Your task to perform on an android device: snooze an email in the gmail app Image 0: 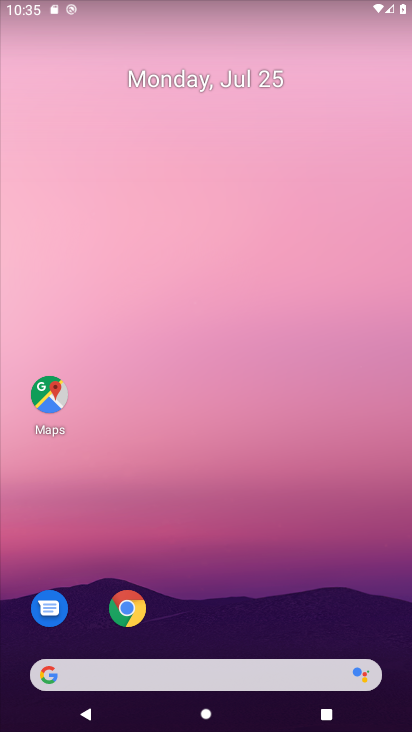
Step 0: drag from (200, 656) to (198, 272)
Your task to perform on an android device: snooze an email in the gmail app Image 1: 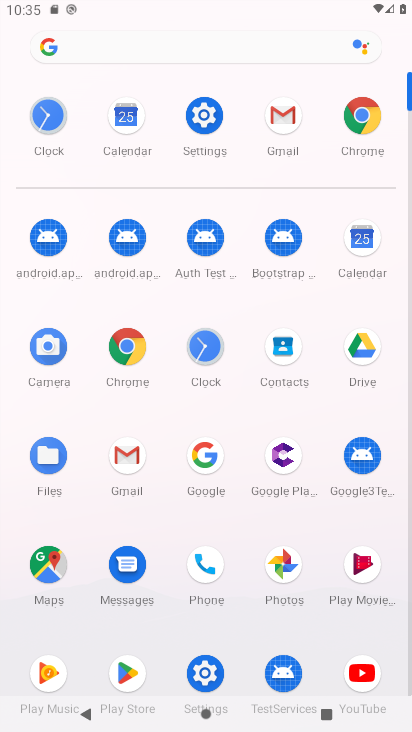
Step 1: click (133, 460)
Your task to perform on an android device: snooze an email in the gmail app Image 2: 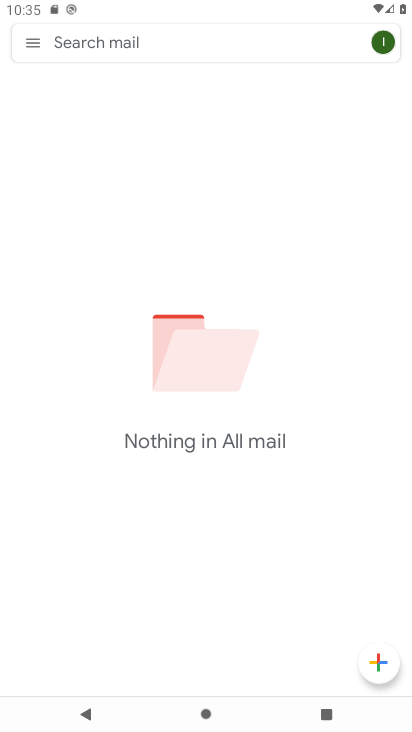
Step 2: click (27, 35)
Your task to perform on an android device: snooze an email in the gmail app Image 3: 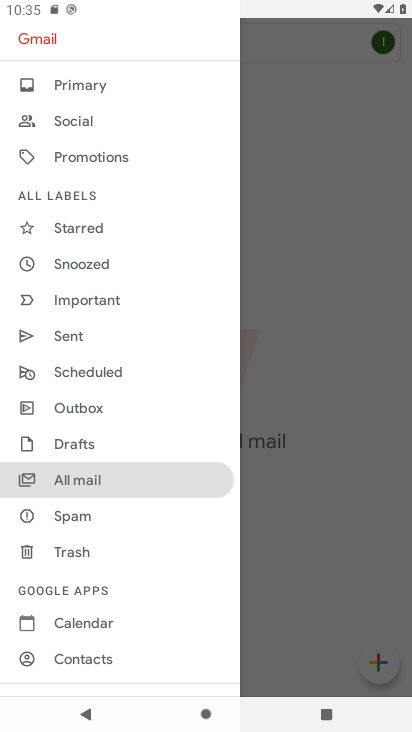
Step 3: click (100, 257)
Your task to perform on an android device: snooze an email in the gmail app Image 4: 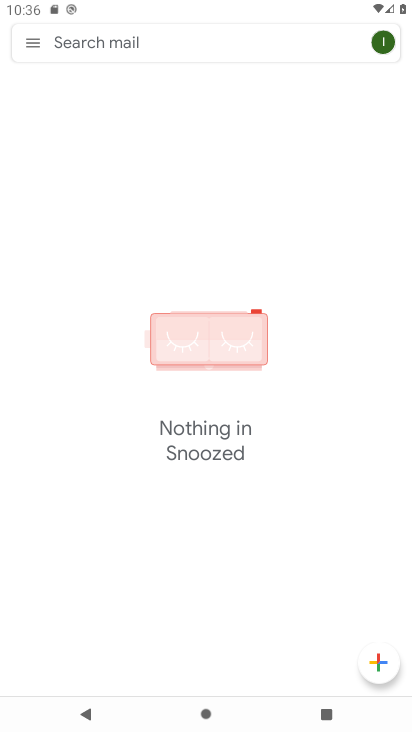
Step 4: task complete